Your task to perform on an android device: snooze an email in the gmail app Image 0: 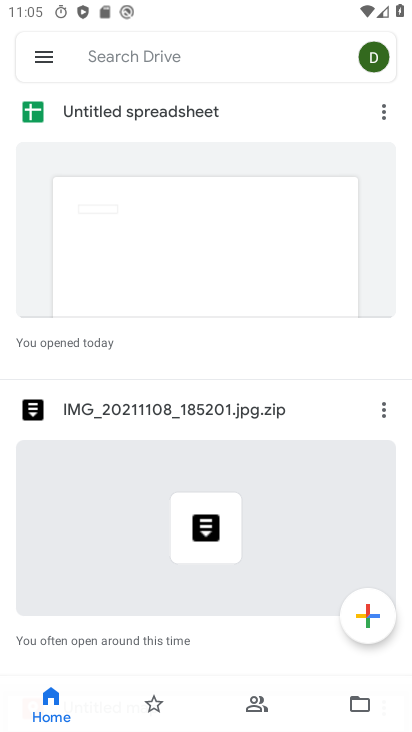
Step 0: press home button
Your task to perform on an android device: snooze an email in the gmail app Image 1: 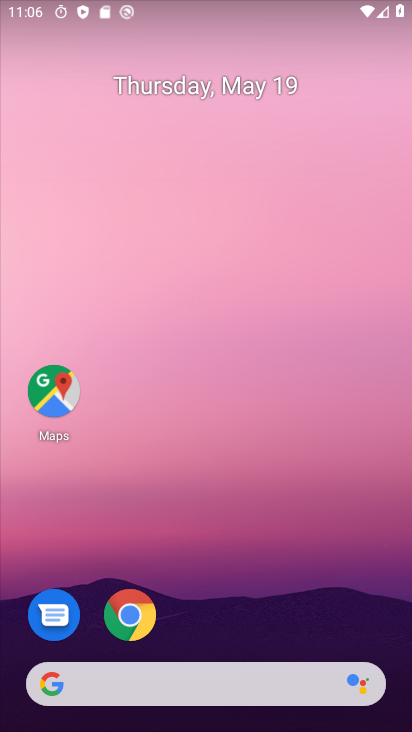
Step 1: drag from (302, 541) to (328, 1)
Your task to perform on an android device: snooze an email in the gmail app Image 2: 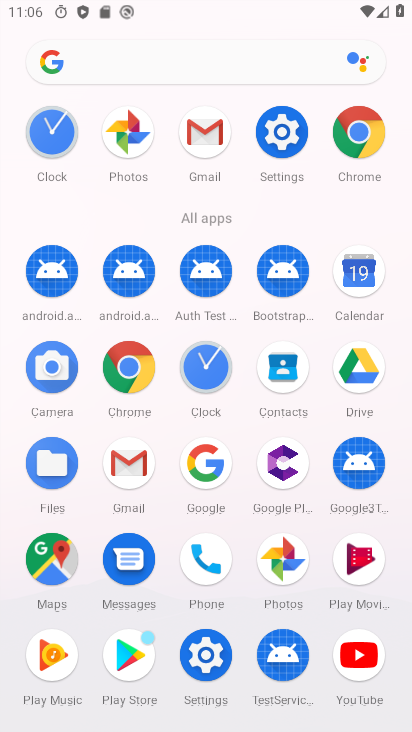
Step 2: click (109, 458)
Your task to perform on an android device: snooze an email in the gmail app Image 3: 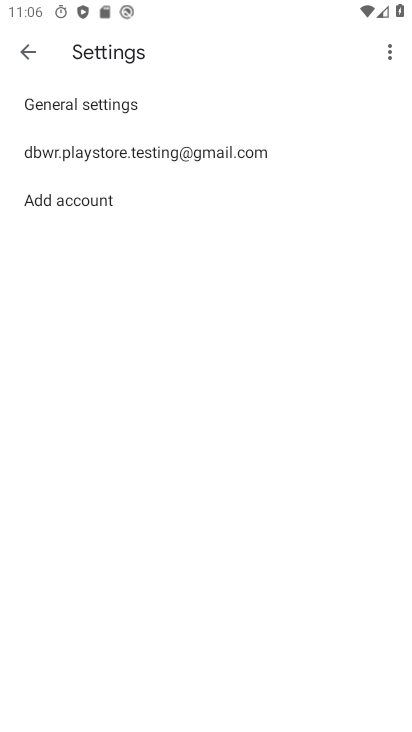
Step 3: click (26, 47)
Your task to perform on an android device: snooze an email in the gmail app Image 4: 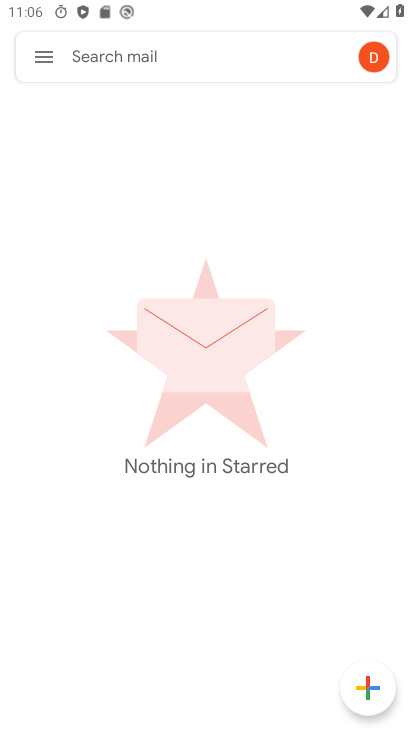
Step 4: click (38, 53)
Your task to perform on an android device: snooze an email in the gmail app Image 5: 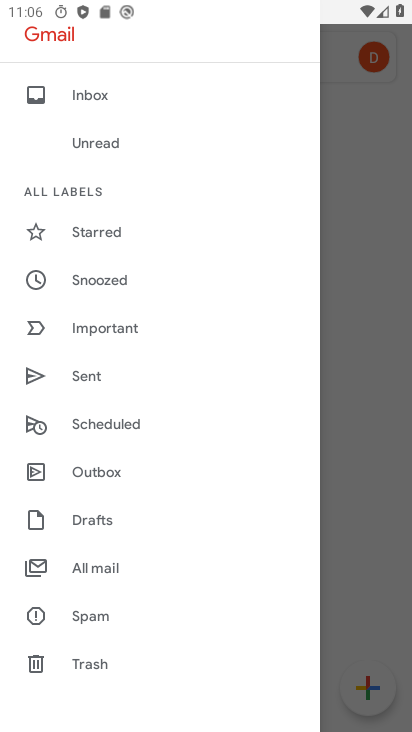
Step 5: click (177, 570)
Your task to perform on an android device: snooze an email in the gmail app Image 6: 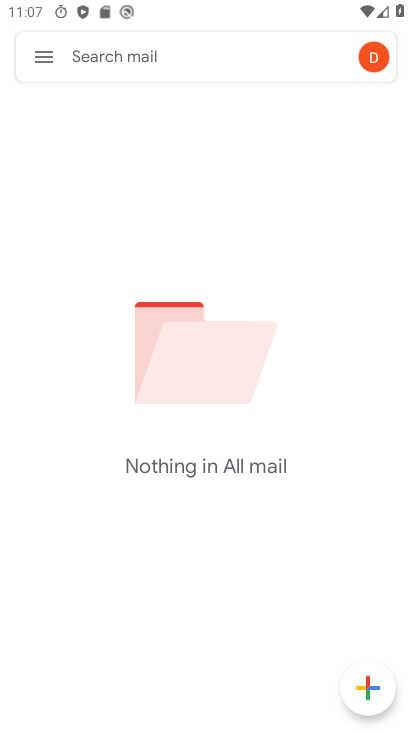
Step 6: task complete